Your task to perform on an android device: When is my next meeting? Image 0: 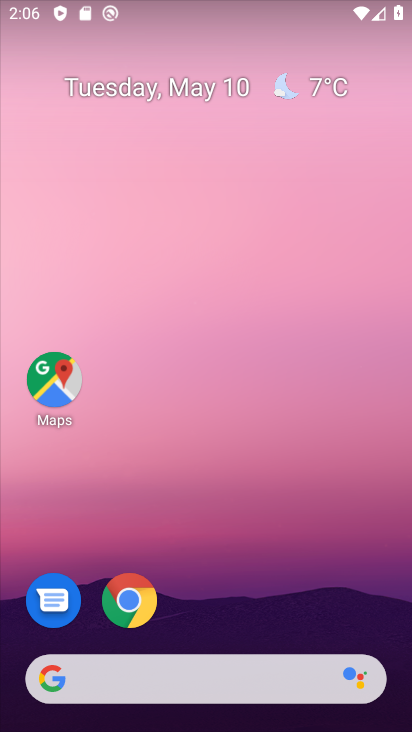
Step 0: click (200, 95)
Your task to perform on an android device: When is my next meeting? Image 1: 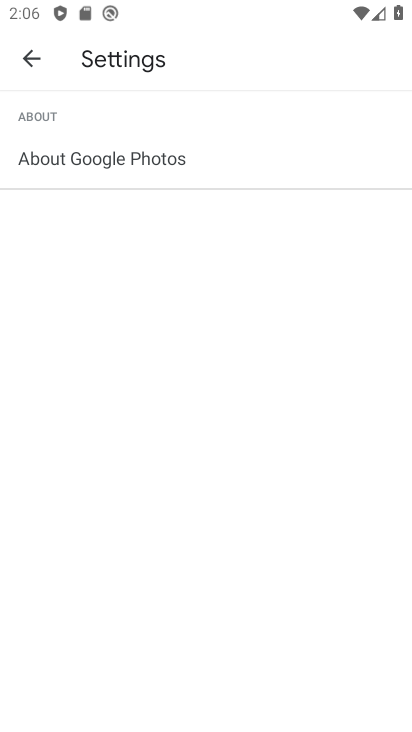
Step 1: press home button
Your task to perform on an android device: When is my next meeting? Image 2: 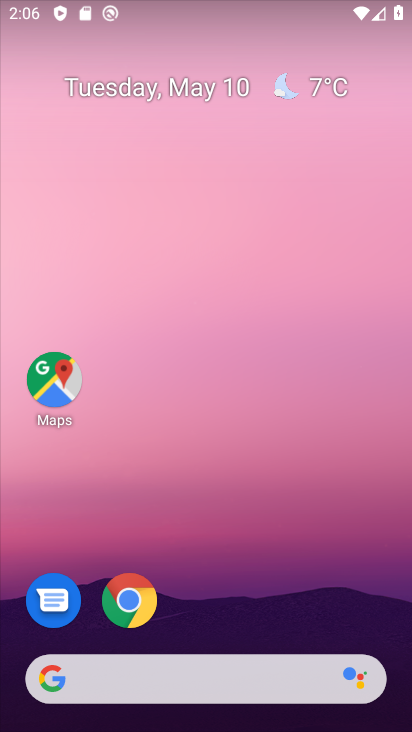
Step 2: drag from (189, 683) to (186, 24)
Your task to perform on an android device: When is my next meeting? Image 3: 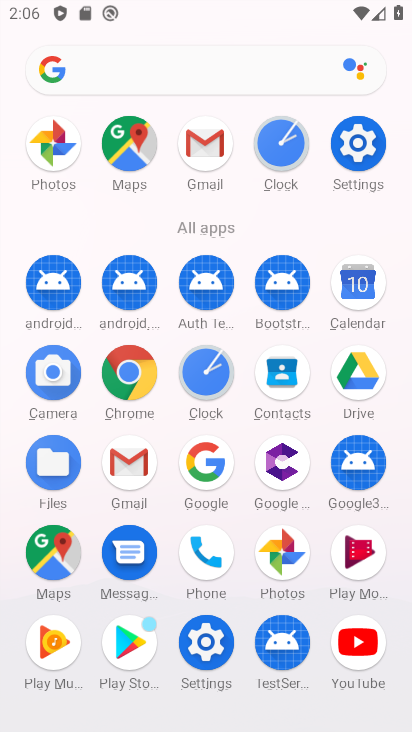
Step 3: click (356, 277)
Your task to perform on an android device: When is my next meeting? Image 4: 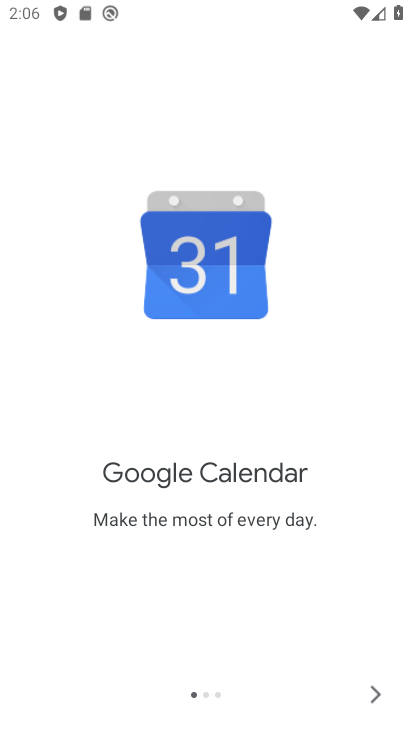
Step 4: click (376, 706)
Your task to perform on an android device: When is my next meeting? Image 5: 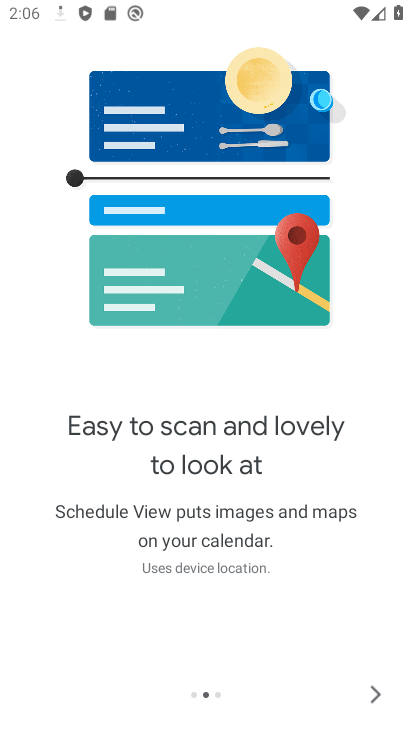
Step 5: click (376, 706)
Your task to perform on an android device: When is my next meeting? Image 6: 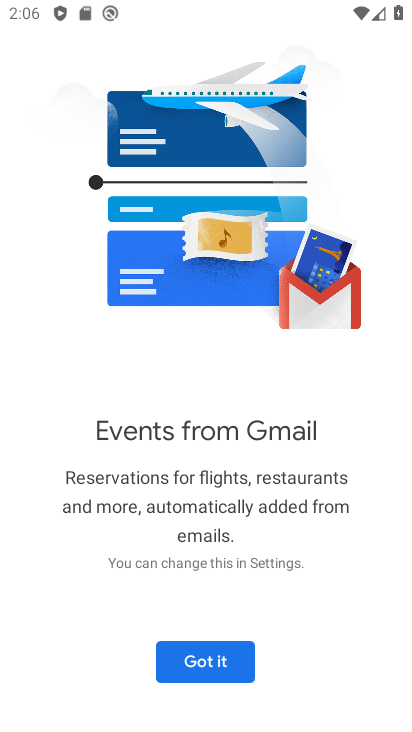
Step 6: click (218, 659)
Your task to perform on an android device: When is my next meeting? Image 7: 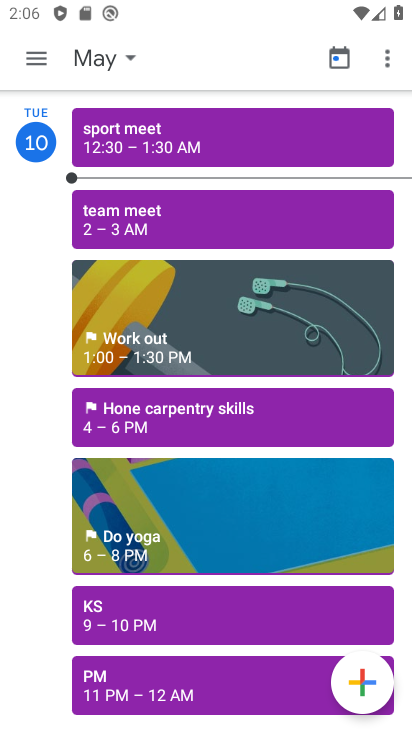
Step 7: task complete